Your task to perform on an android device: Go to accessibility settings Image 0: 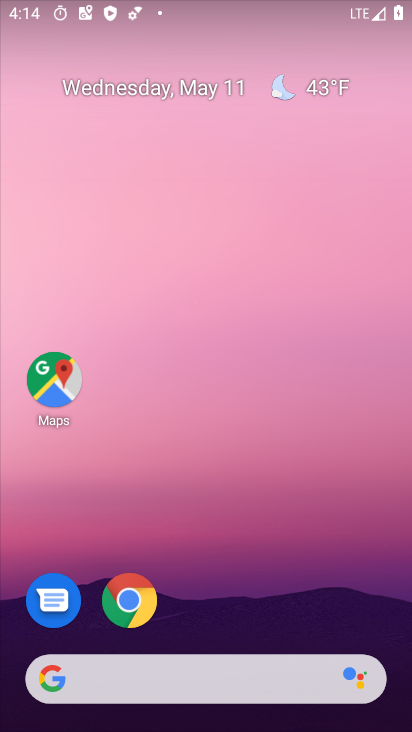
Step 0: drag from (334, 638) to (298, 0)
Your task to perform on an android device: Go to accessibility settings Image 1: 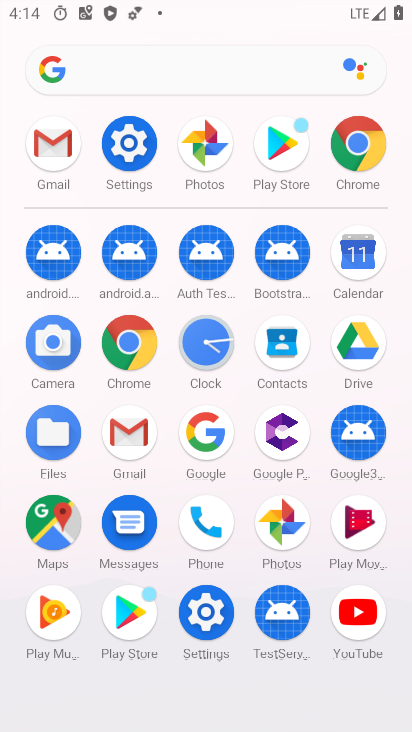
Step 1: click (132, 146)
Your task to perform on an android device: Go to accessibility settings Image 2: 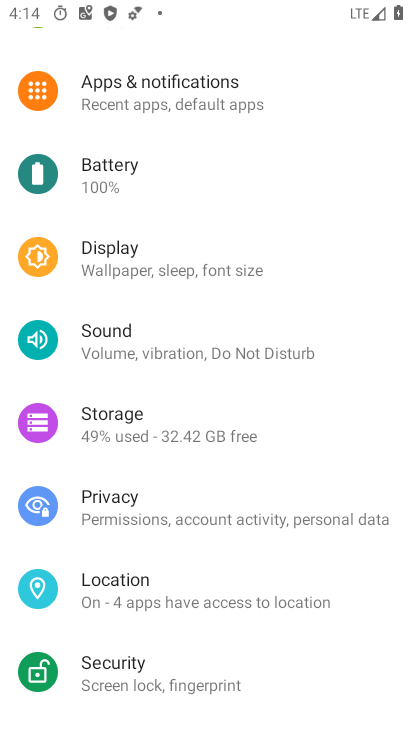
Step 2: drag from (246, 536) to (260, 142)
Your task to perform on an android device: Go to accessibility settings Image 3: 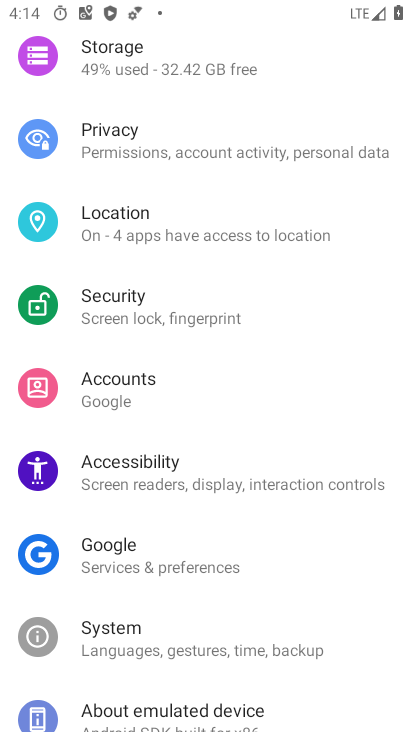
Step 3: click (124, 484)
Your task to perform on an android device: Go to accessibility settings Image 4: 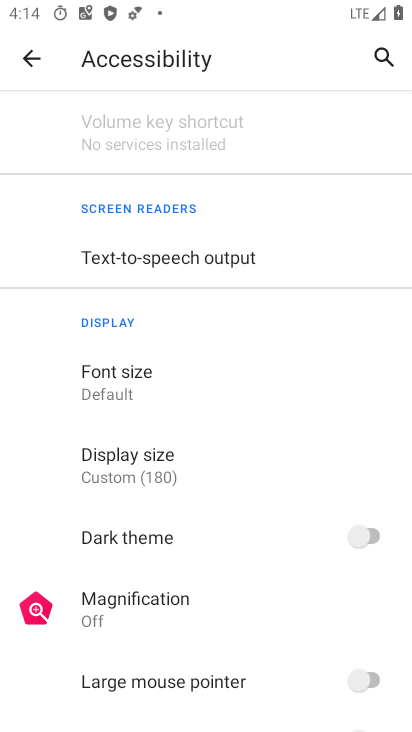
Step 4: task complete